Your task to perform on an android device: Go to Google Image 0: 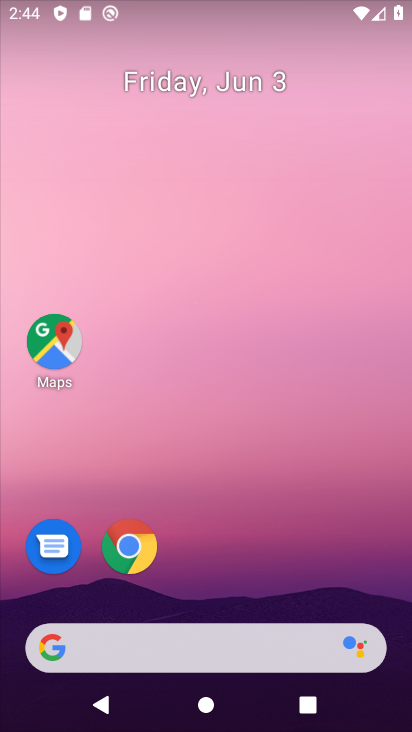
Step 0: click (305, 201)
Your task to perform on an android device: Go to Google Image 1: 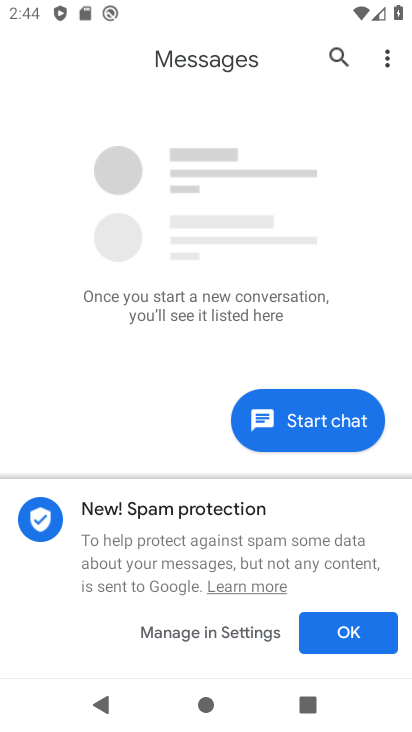
Step 1: press home button
Your task to perform on an android device: Go to Google Image 2: 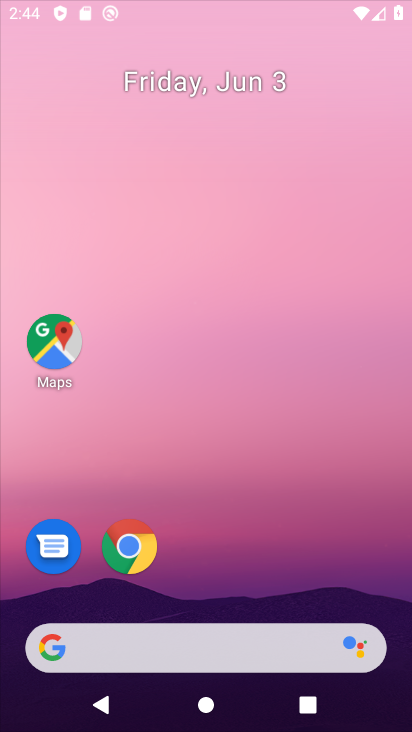
Step 2: drag from (328, 538) to (282, 75)
Your task to perform on an android device: Go to Google Image 3: 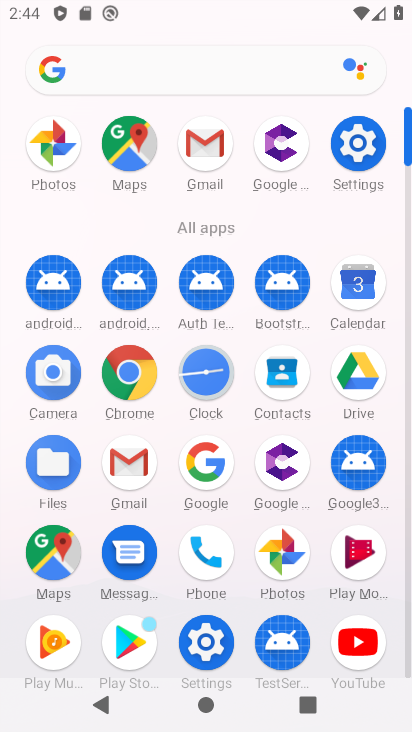
Step 3: click (209, 475)
Your task to perform on an android device: Go to Google Image 4: 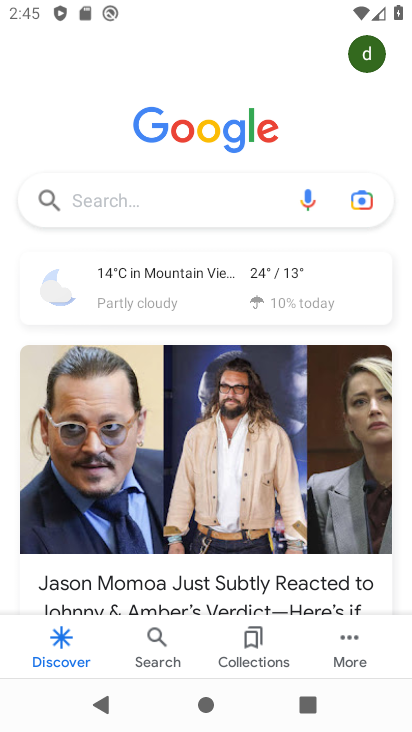
Step 4: task complete